Your task to perform on an android device: open app "Speedtest by Ookla" (install if not already installed) and enter user name: "hyena@outlook.com" and password: "terminators" Image 0: 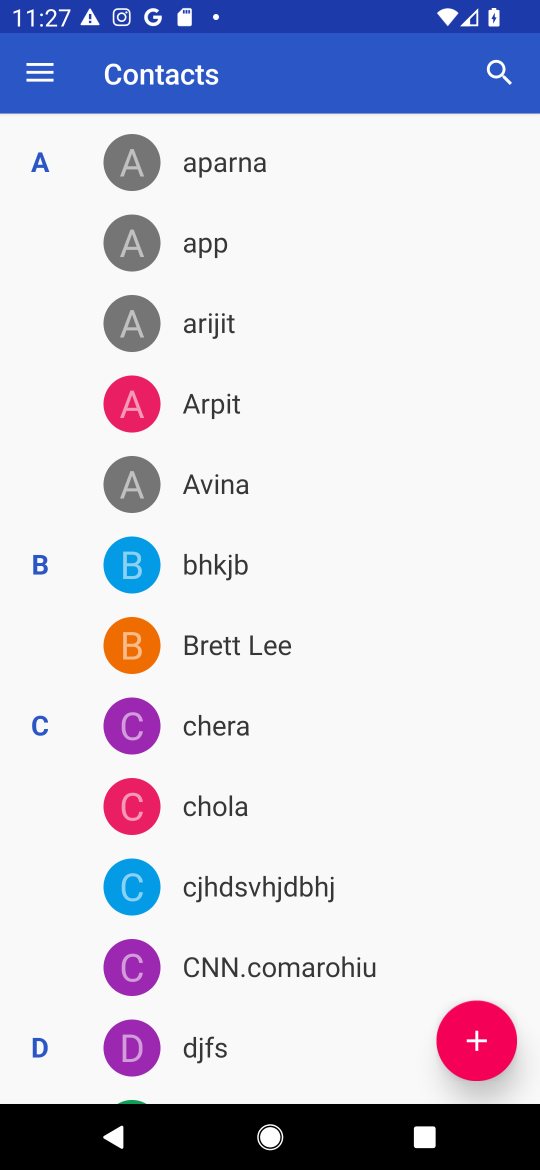
Step 0: press home button
Your task to perform on an android device: open app "Speedtest by Ookla" (install if not already installed) and enter user name: "hyena@outlook.com" and password: "terminators" Image 1: 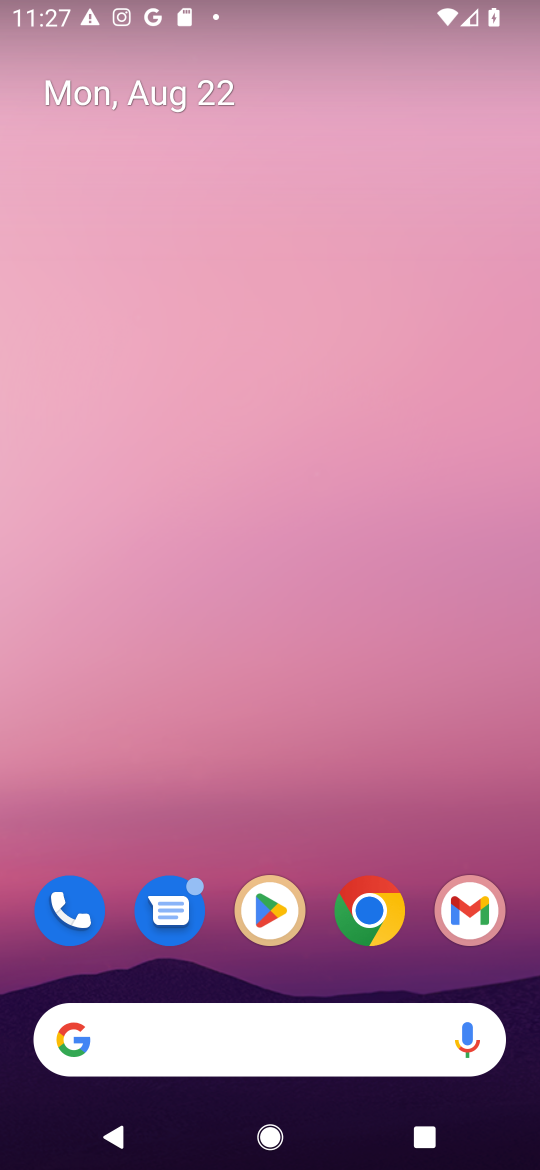
Step 1: click (282, 881)
Your task to perform on an android device: open app "Speedtest by Ookla" (install if not already installed) and enter user name: "hyena@outlook.com" and password: "terminators" Image 2: 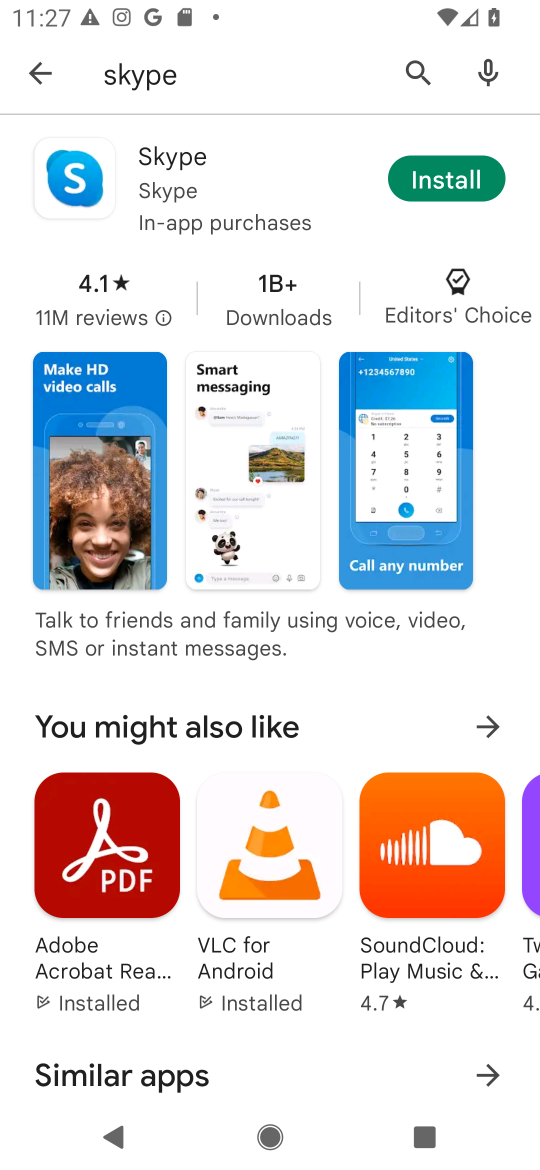
Step 2: click (404, 71)
Your task to perform on an android device: open app "Speedtest by Ookla" (install if not already installed) and enter user name: "hyena@outlook.com" and password: "terminators" Image 3: 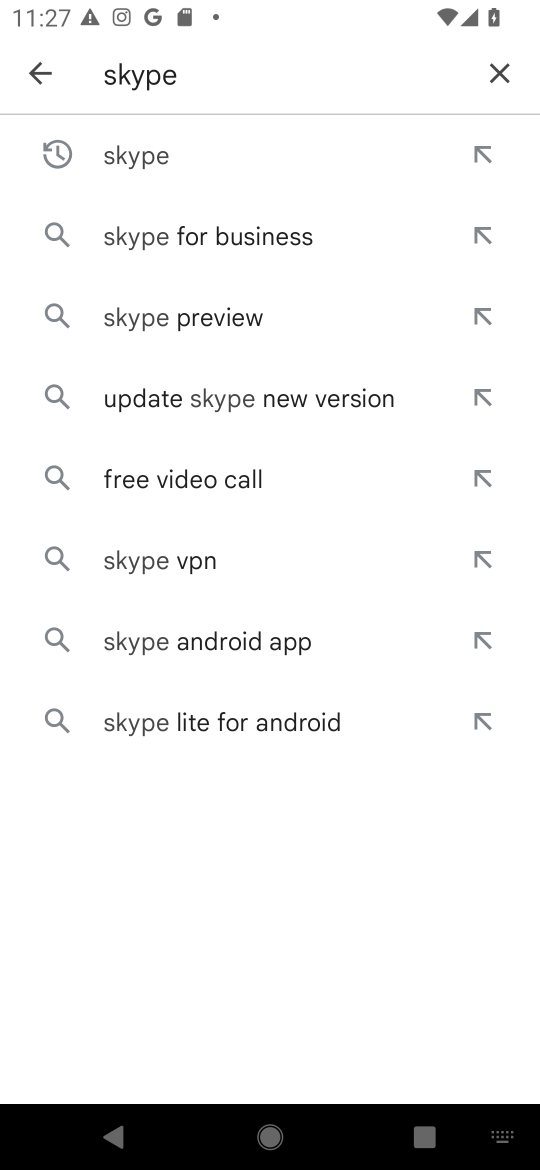
Step 3: click (489, 88)
Your task to perform on an android device: open app "Speedtest by Ookla" (install if not already installed) and enter user name: "hyena@outlook.com" and password: "terminators" Image 4: 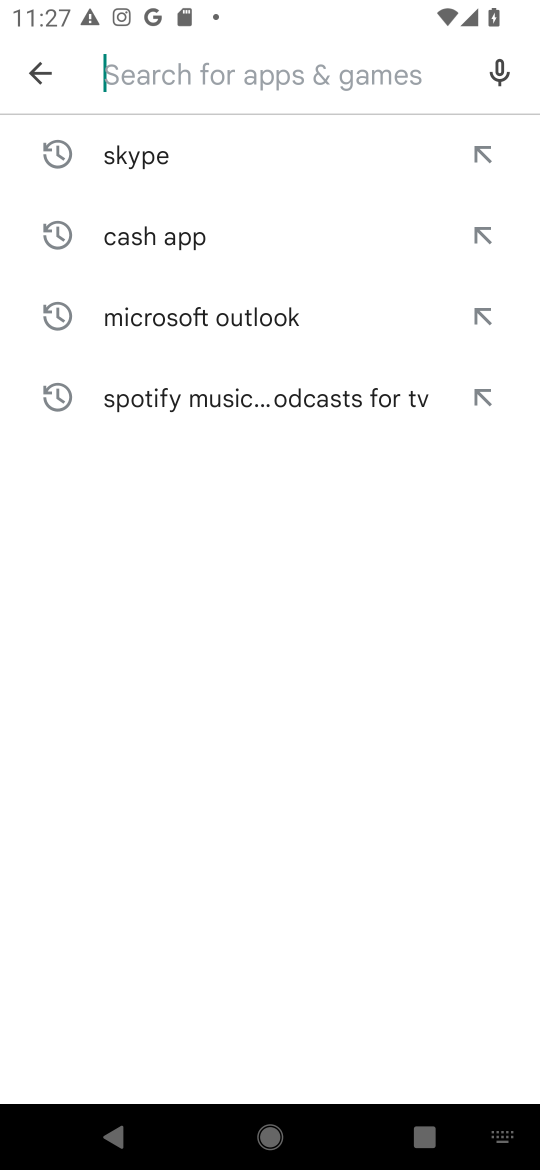
Step 4: type "Speedtest by Ookla"
Your task to perform on an android device: open app "Speedtest by Ookla" (install if not already installed) and enter user name: "hyena@outlook.com" and password: "terminators" Image 5: 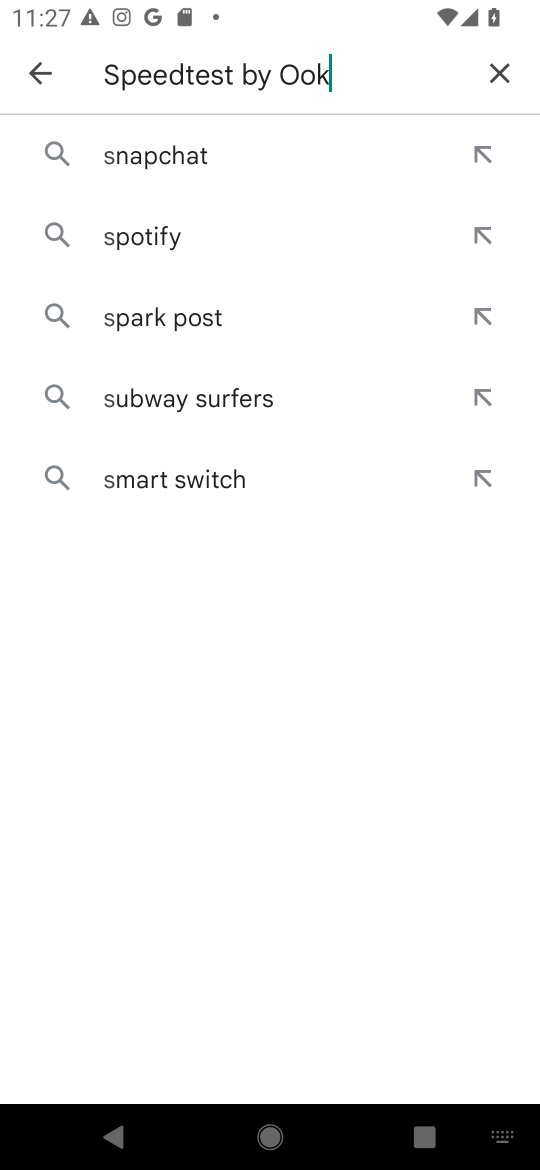
Step 5: type ""
Your task to perform on an android device: open app "Speedtest by Ookla" (install if not already installed) and enter user name: "hyena@outlook.com" and password: "terminators" Image 6: 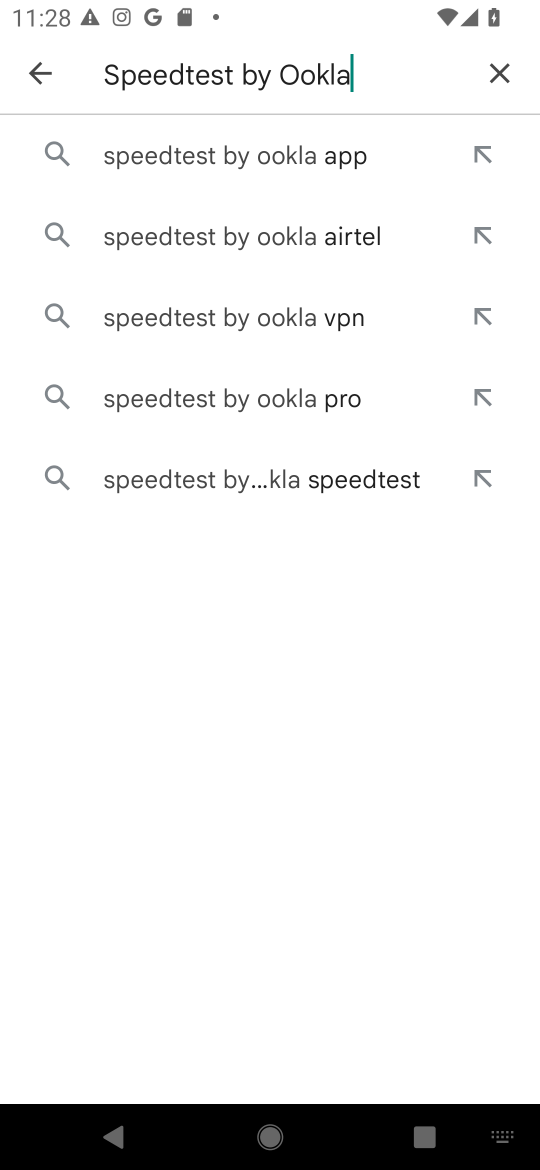
Step 6: click (275, 152)
Your task to perform on an android device: open app "Speedtest by Ookla" (install if not already installed) and enter user name: "hyena@outlook.com" and password: "terminators" Image 7: 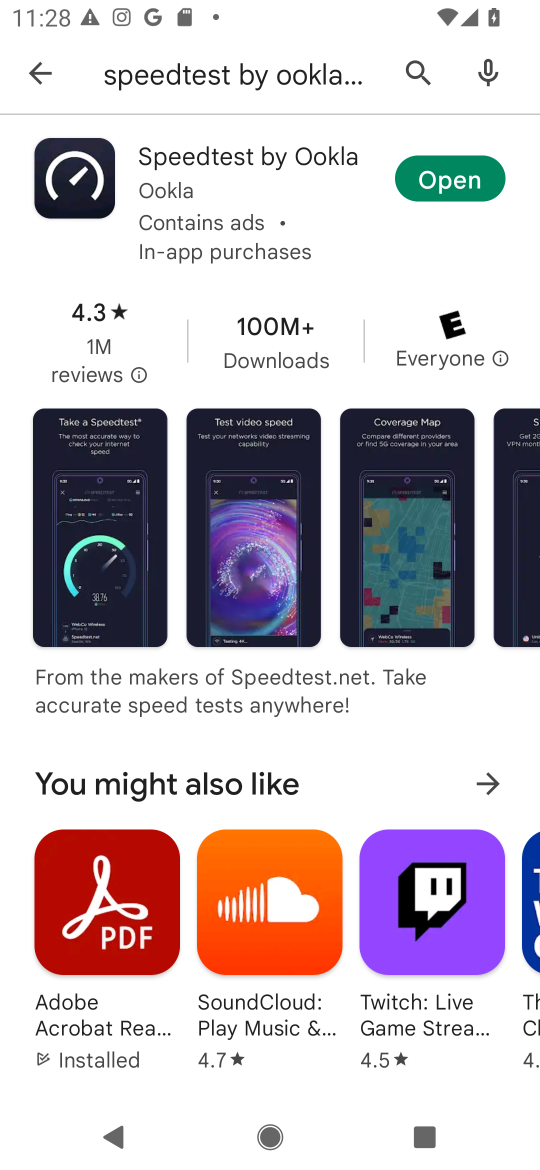
Step 7: click (430, 185)
Your task to perform on an android device: open app "Speedtest by Ookla" (install if not already installed) and enter user name: "hyena@outlook.com" and password: "terminators" Image 8: 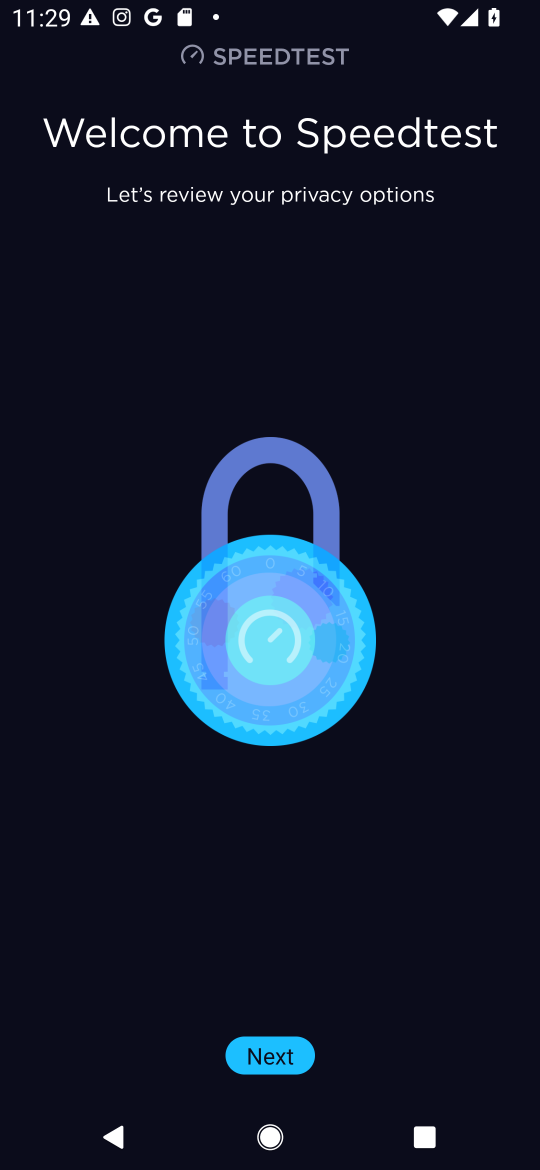
Step 8: task complete